Your task to perform on an android device: Is it going to rain this weekend? Image 0: 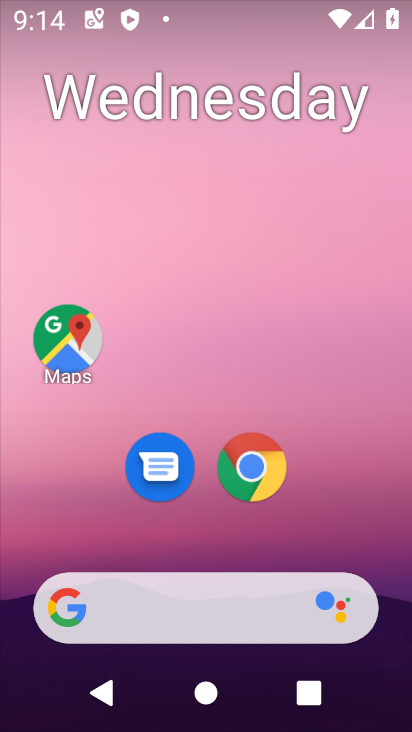
Step 0: press home button
Your task to perform on an android device: Is it going to rain this weekend? Image 1: 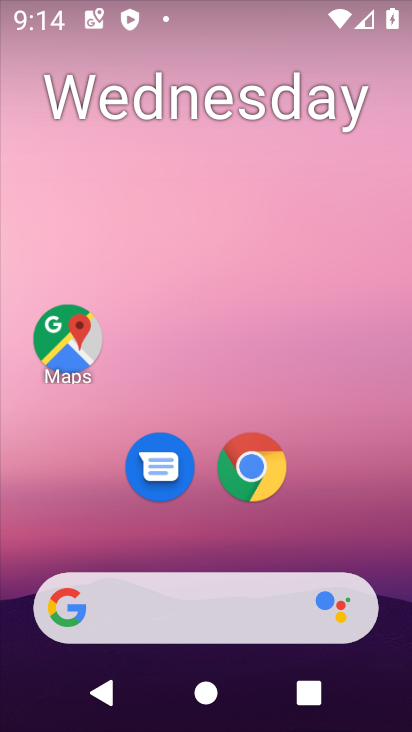
Step 1: drag from (321, 518) to (259, 83)
Your task to perform on an android device: Is it going to rain this weekend? Image 2: 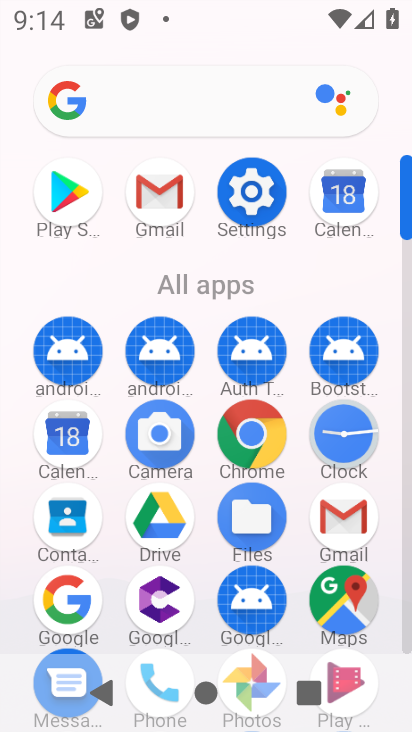
Step 2: click (66, 598)
Your task to perform on an android device: Is it going to rain this weekend? Image 3: 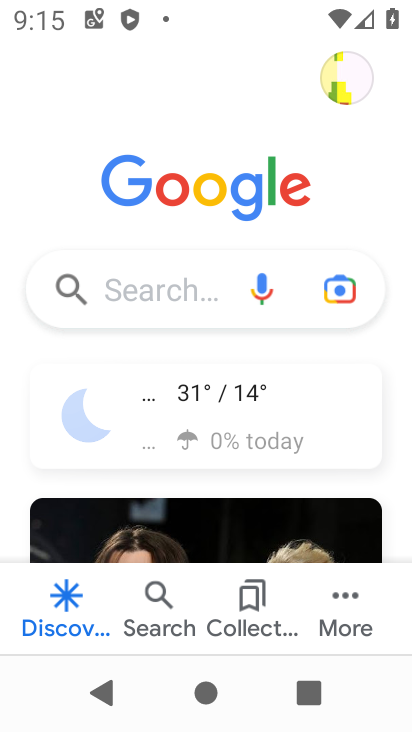
Step 3: click (227, 392)
Your task to perform on an android device: Is it going to rain this weekend? Image 4: 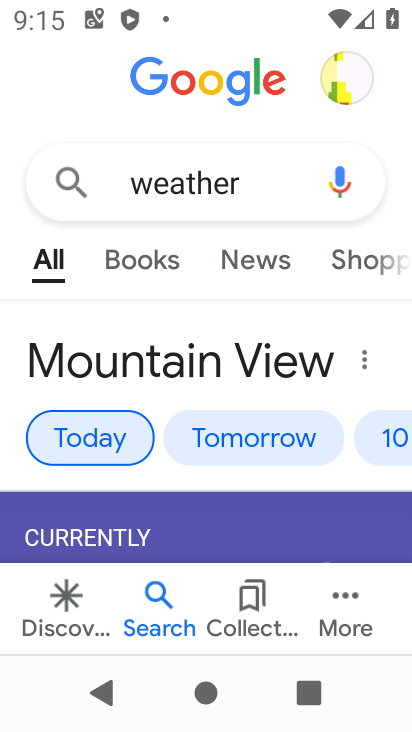
Step 4: click (377, 429)
Your task to perform on an android device: Is it going to rain this weekend? Image 5: 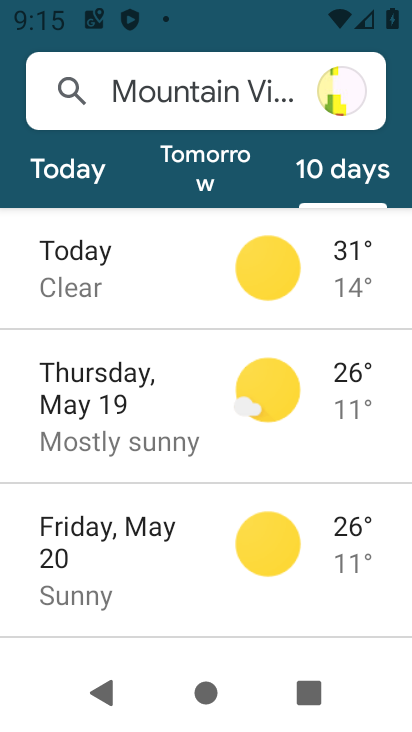
Step 5: task complete